Your task to perform on an android device: Search for the best rated drill on Lowes.com Image 0: 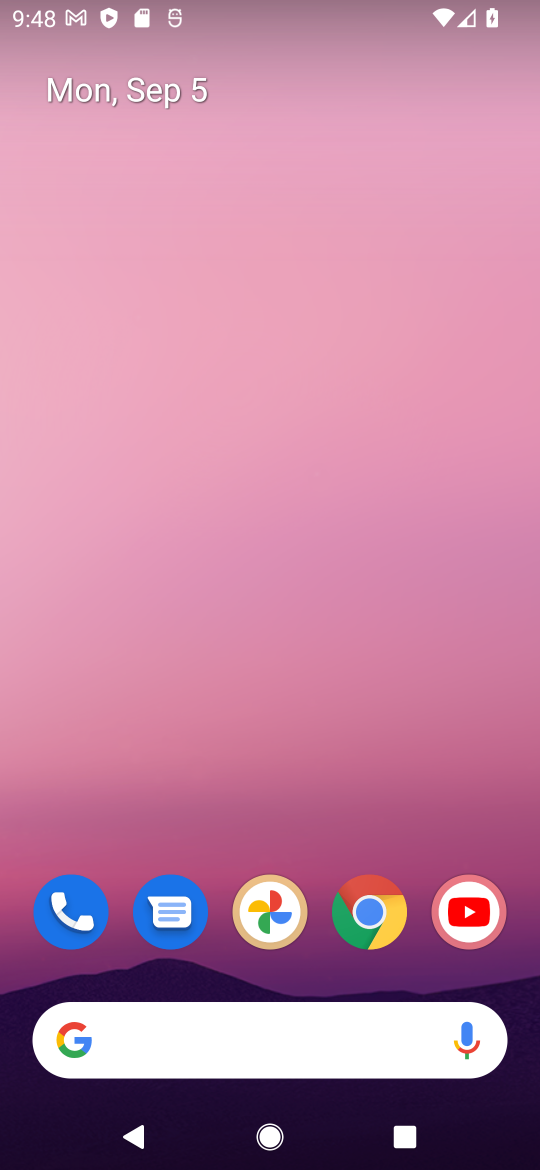
Step 0: click (365, 913)
Your task to perform on an android device: Search for the best rated drill on Lowes.com Image 1: 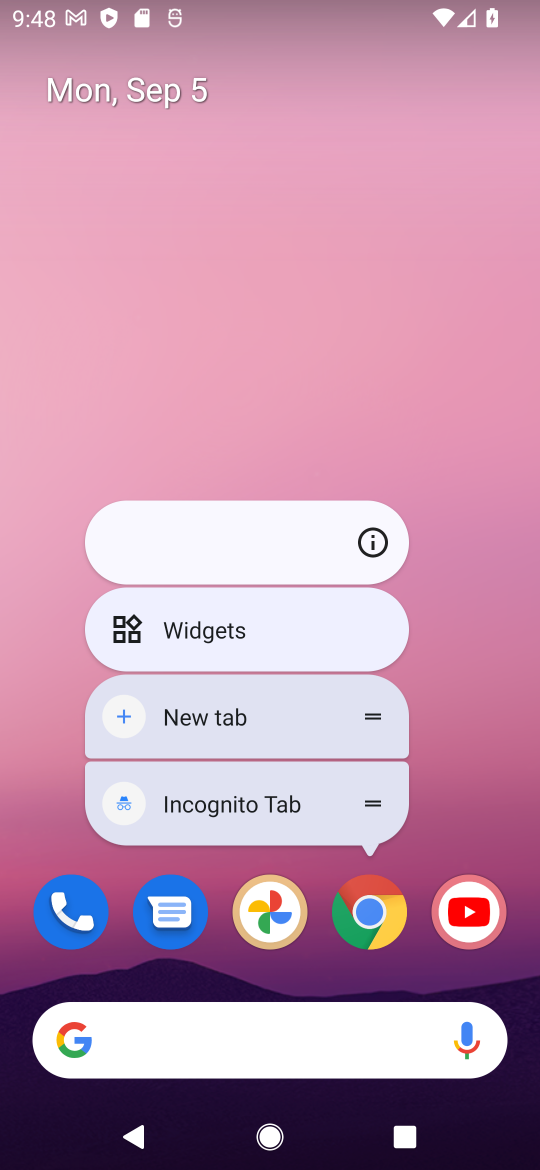
Step 1: click (365, 913)
Your task to perform on an android device: Search for the best rated drill on Lowes.com Image 2: 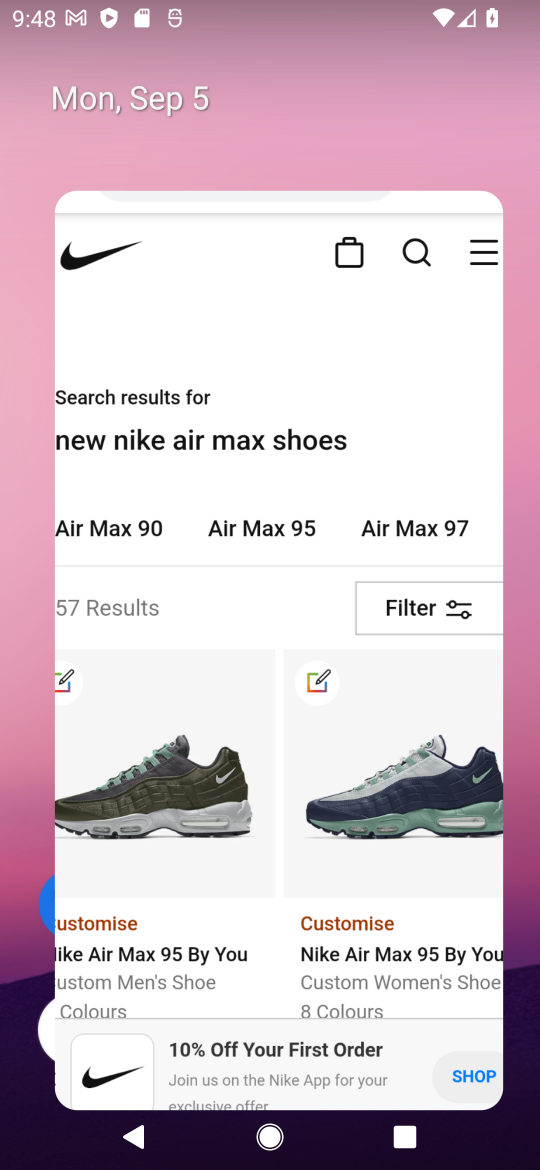
Step 2: click (371, 915)
Your task to perform on an android device: Search for the best rated drill on Lowes.com Image 3: 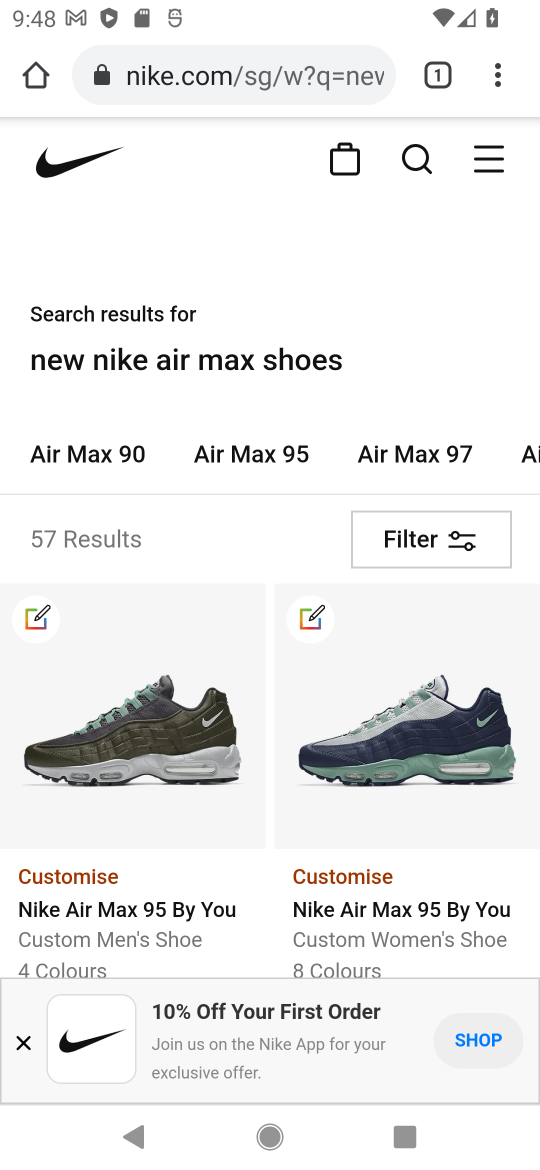
Step 3: click (209, 77)
Your task to perform on an android device: Search for the best rated drill on Lowes.com Image 4: 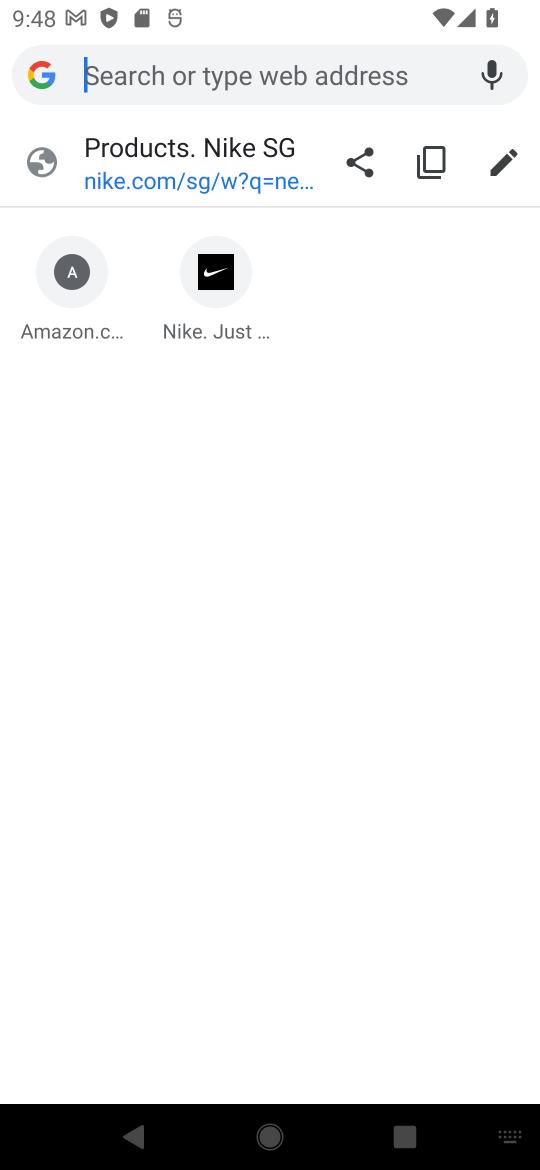
Step 4: type "Lowes.com"
Your task to perform on an android device: Search for the best rated drill on Lowes.com Image 5: 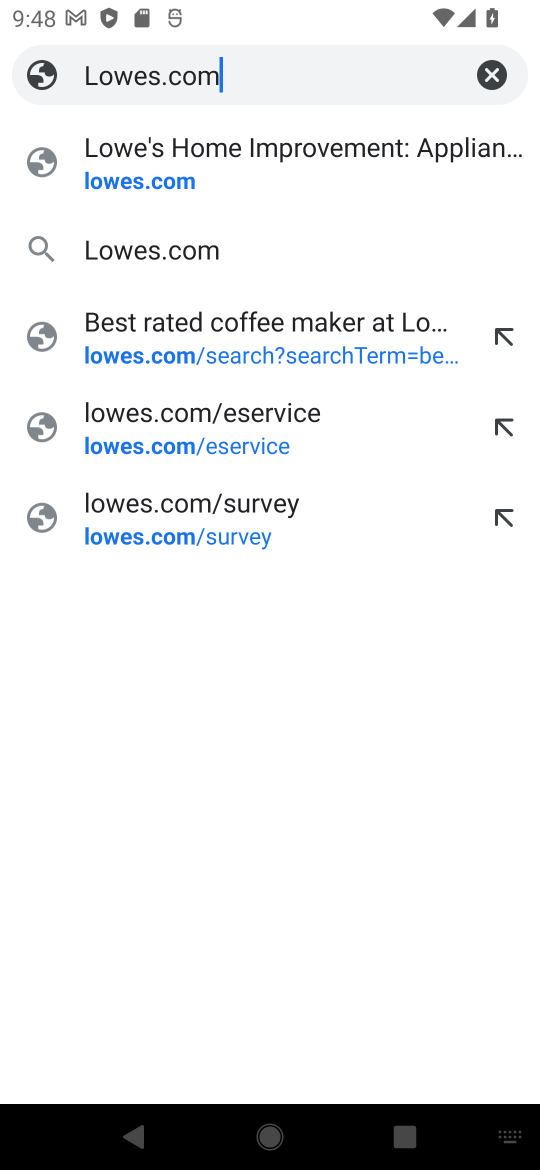
Step 5: click (176, 262)
Your task to perform on an android device: Search for the best rated drill on Lowes.com Image 6: 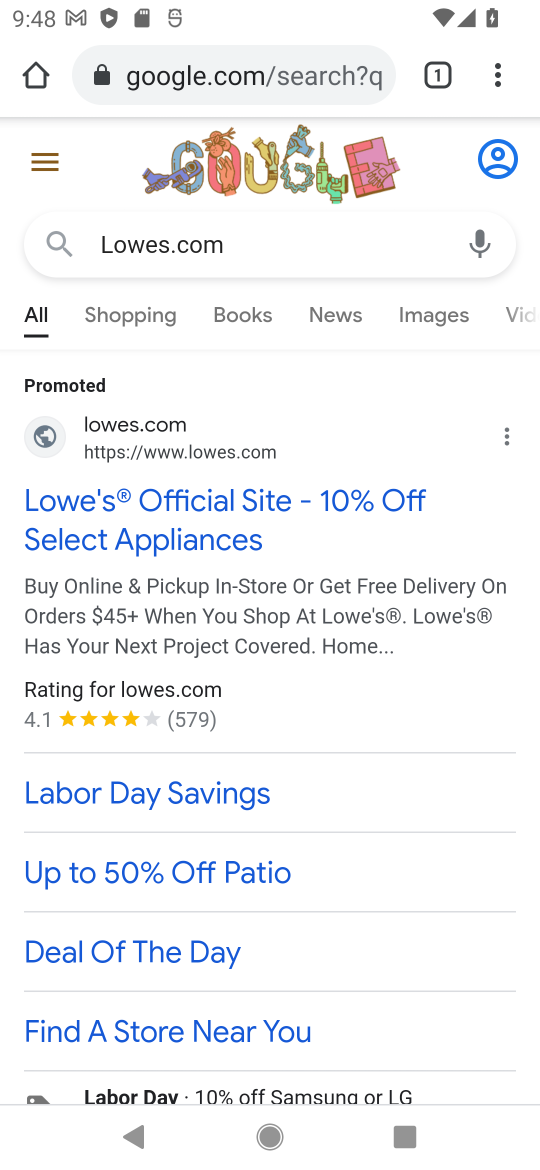
Step 6: click (103, 525)
Your task to perform on an android device: Search for the best rated drill on Lowes.com Image 7: 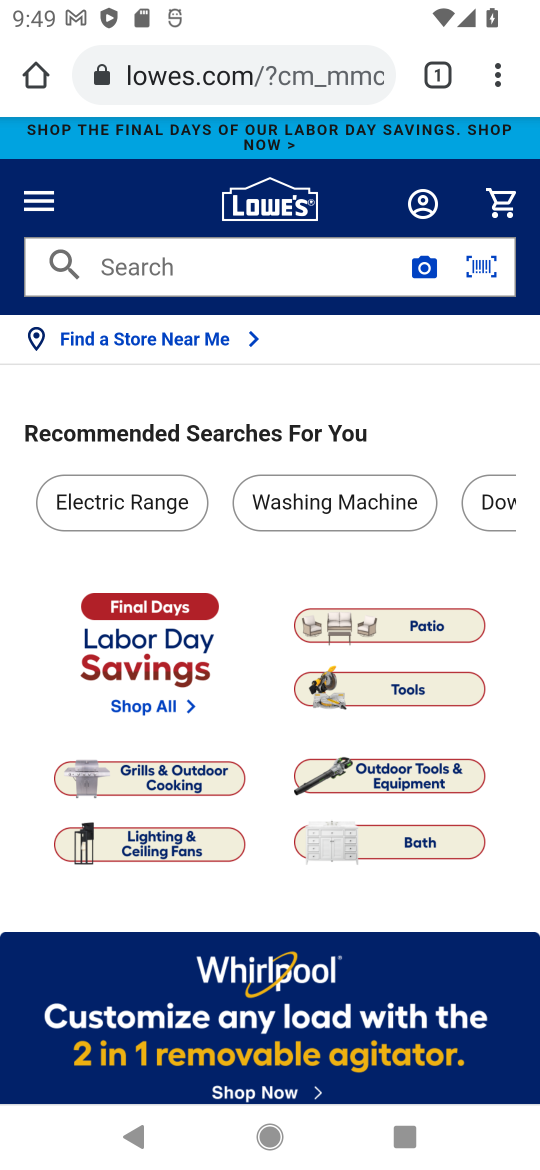
Step 7: click (160, 255)
Your task to perform on an android device: Search for the best rated drill on Lowes.com Image 8: 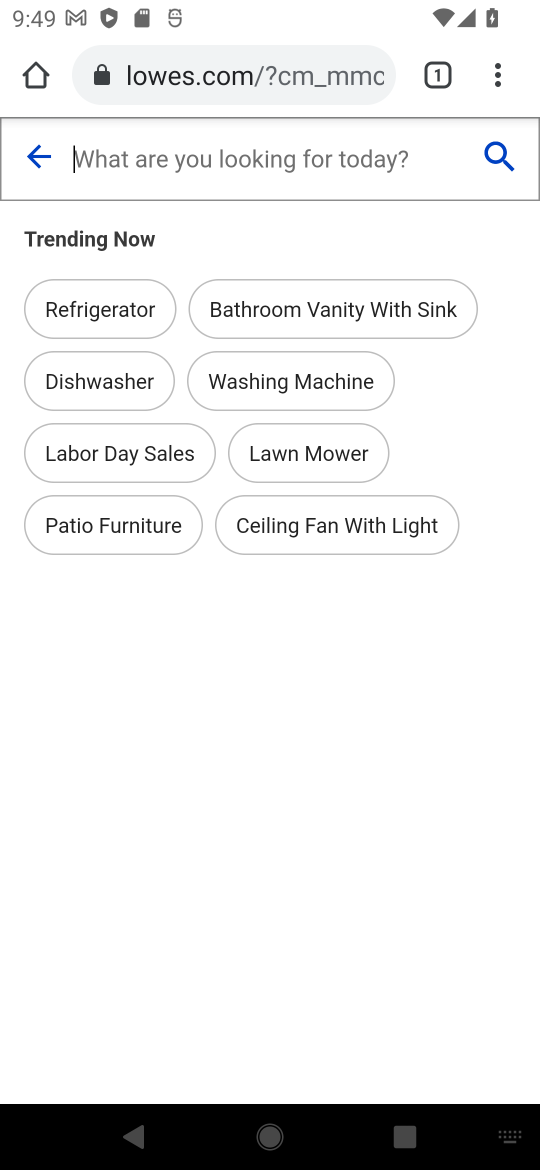
Step 8: type " best rated drill"
Your task to perform on an android device: Search for the best rated drill on Lowes.com Image 9: 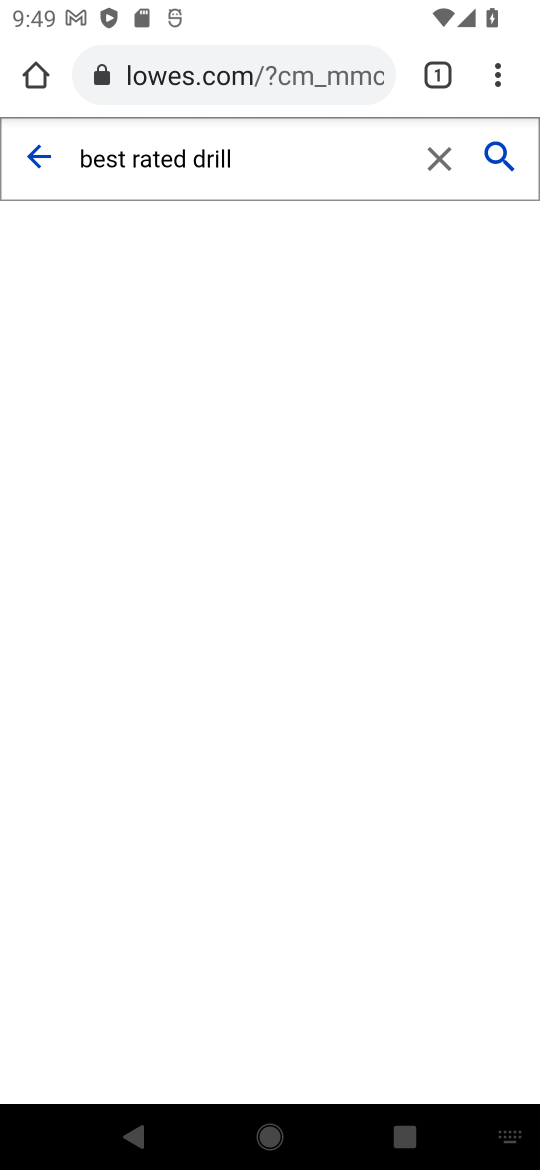
Step 9: click (486, 160)
Your task to perform on an android device: Search for the best rated drill on Lowes.com Image 10: 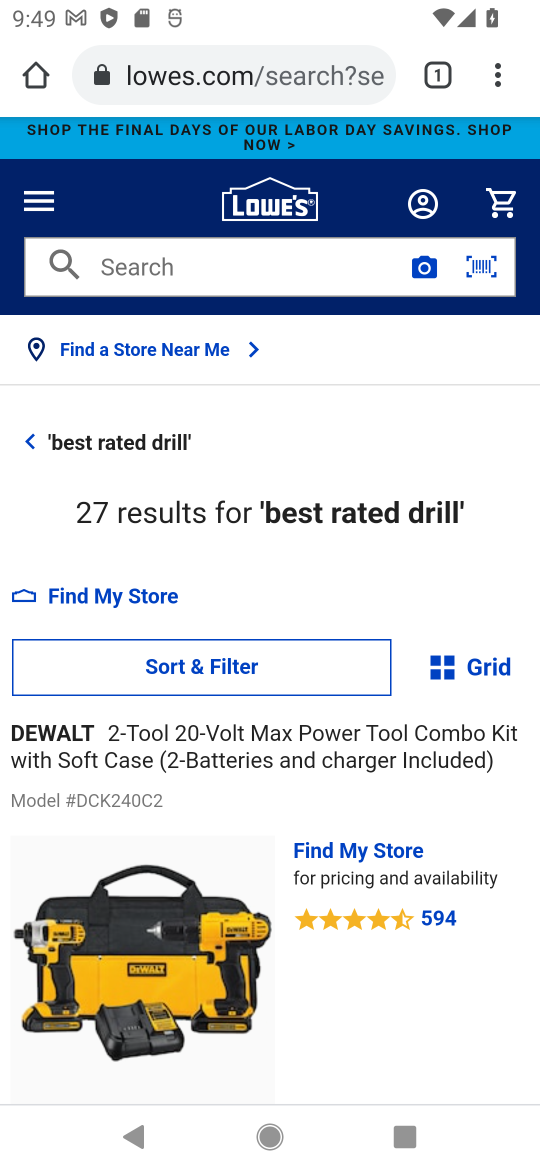
Step 10: task complete